Your task to perform on an android device: Clear the cart on walmart. Add razer nari to the cart on walmart, then select checkout. Image 0: 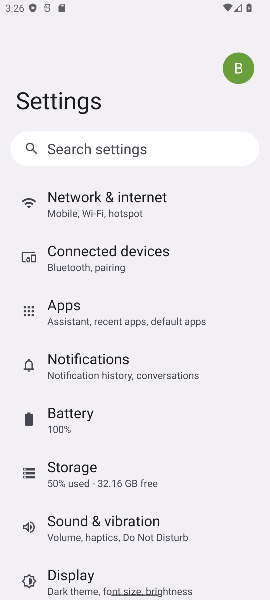
Step 0: press home button
Your task to perform on an android device: Clear the cart on walmart. Add razer nari to the cart on walmart, then select checkout. Image 1: 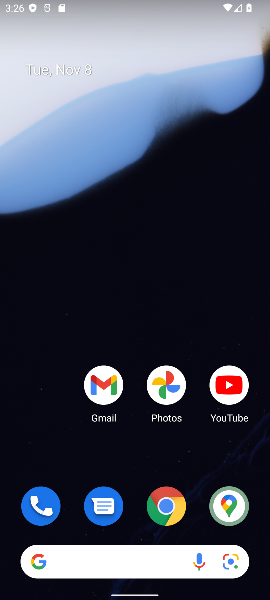
Step 1: drag from (147, 469) to (186, 272)
Your task to perform on an android device: Clear the cart on walmart. Add razer nari to the cart on walmart, then select checkout. Image 2: 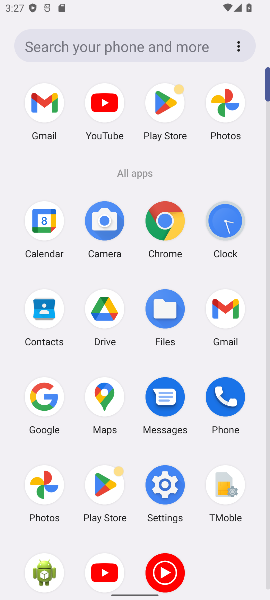
Step 2: click (45, 411)
Your task to perform on an android device: Clear the cart on walmart. Add razer nari to the cart on walmart, then select checkout. Image 3: 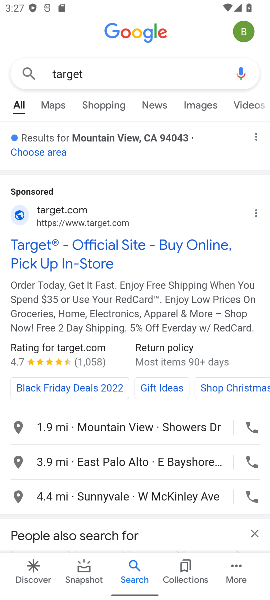
Step 3: click (127, 74)
Your task to perform on an android device: Clear the cart on walmart. Add razer nari to the cart on walmart, then select checkout. Image 4: 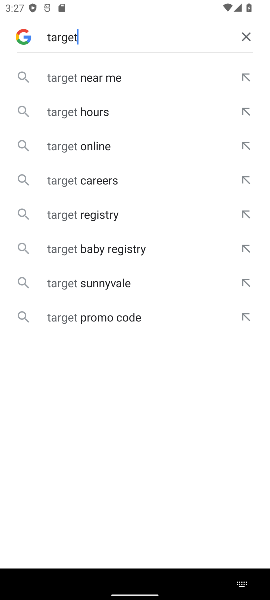
Step 4: click (247, 37)
Your task to perform on an android device: Clear the cart on walmart. Add razer nari to the cart on walmart, then select checkout. Image 5: 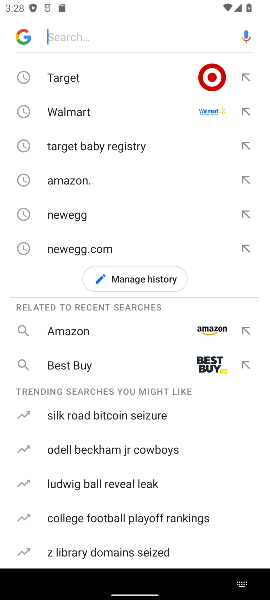
Step 5: type "walmart"
Your task to perform on an android device: Clear the cart on walmart. Add razer nari to the cart on walmart, then select checkout. Image 6: 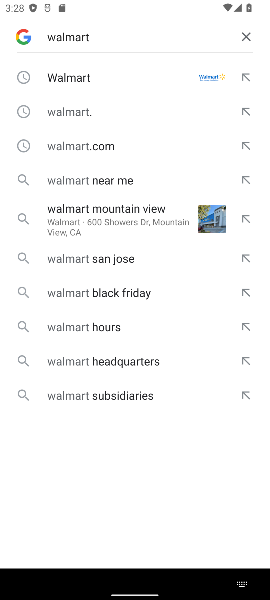
Step 6: click (133, 55)
Your task to perform on an android device: Clear the cart on walmart. Add razer nari to the cart on walmart, then select checkout. Image 7: 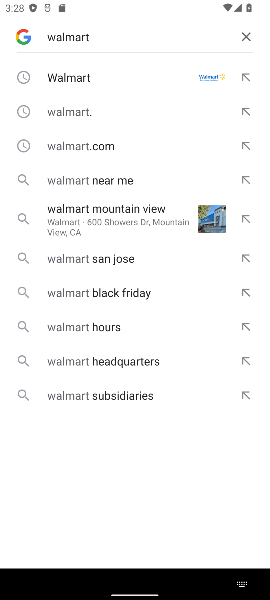
Step 7: click (130, 79)
Your task to perform on an android device: Clear the cart on walmart. Add razer nari to the cart on walmart, then select checkout. Image 8: 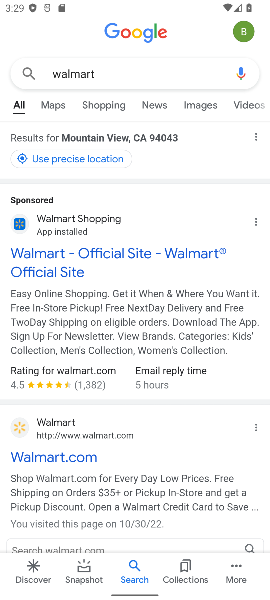
Step 8: click (95, 253)
Your task to perform on an android device: Clear the cart on walmart. Add razer nari to the cart on walmart, then select checkout. Image 9: 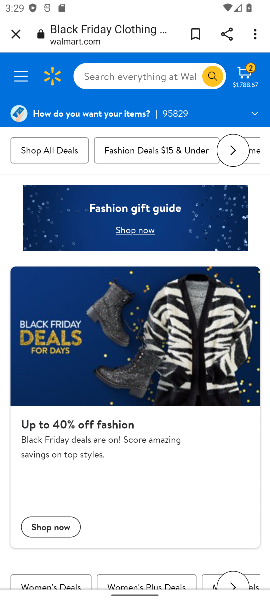
Step 9: click (165, 79)
Your task to perform on an android device: Clear the cart on walmart. Add razer nari to the cart on walmart, then select checkout. Image 10: 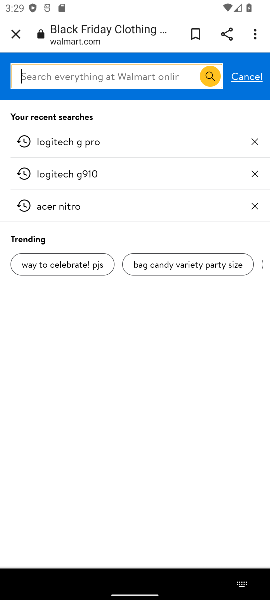
Step 10: type "razer nari"
Your task to perform on an android device: Clear the cart on walmart. Add razer nari to the cart on walmart, then select checkout. Image 11: 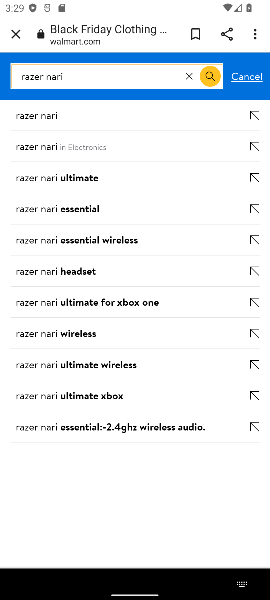
Step 11: click (110, 147)
Your task to perform on an android device: Clear the cart on walmart. Add razer nari to the cart on walmart, then select checkout. Image 12: 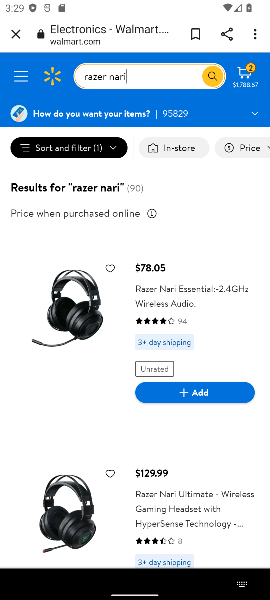
Step 12: click (197, 398)
Your task to perform on an android device: Clear the cart on walmart. Add razer nari to the cart on walmart, then select checkout. Image 13: 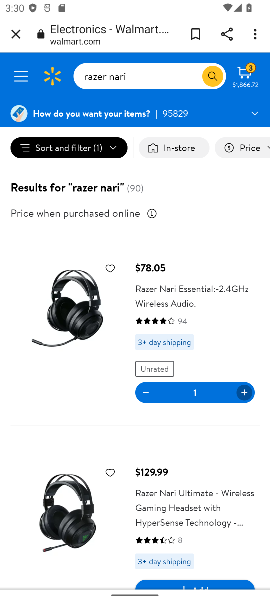
Step 13: click (252, 76)
Your task to perform on an android device: Clear the cart on walmart. Add razer nari to the cart on walmart, then select checkout. Image 14: 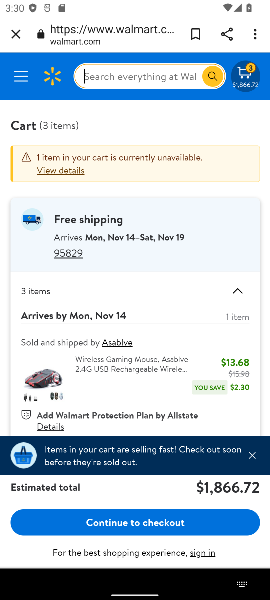
Step 14: click (205, 525)
Your task to perform on an android device: Clear the cart on walmart. Add razer nari to the cart on walmart, then select checkout. Image 15: 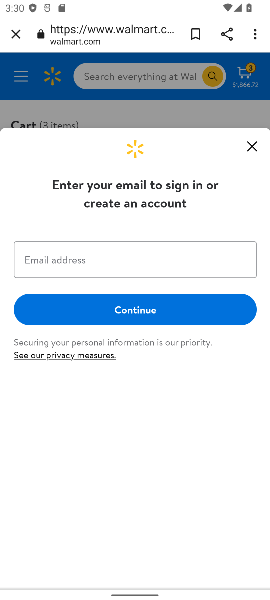
Step 15: task complete